Your task to perform on an android device: Open Wikipedia Image 0: 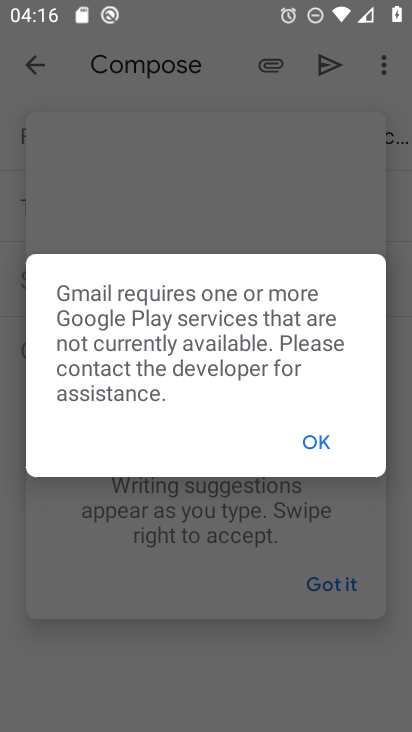
Step 0: press home button
Your task to perform on an android device: Open Wikipedia Image 1: 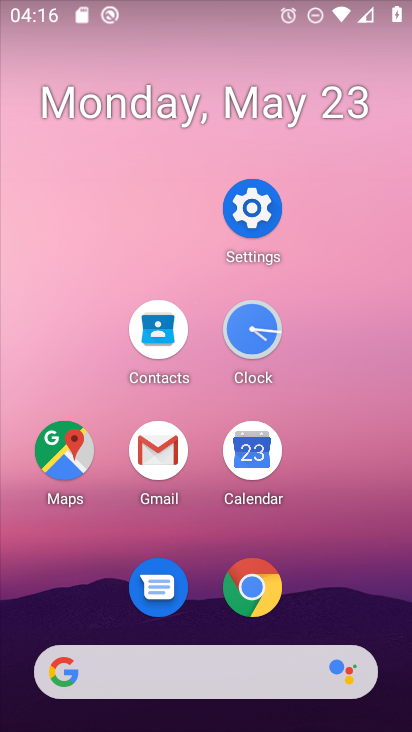
Step 1: click (345, 574)
Your task to perform on an android device: Open Wikipedia Image 2: 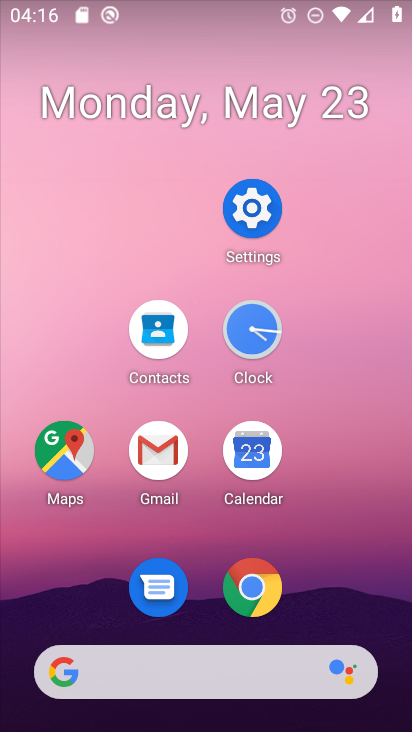
Step 2: click (262, 583)
Your task to perform on an android device: Open Wikipedia Image 3: 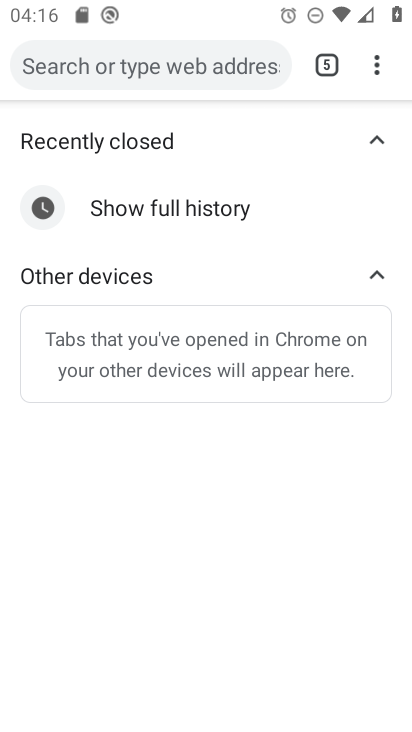
Step 3: click (212, 55)
Your task to perform on an android device: Open Wikipedia Image 4: 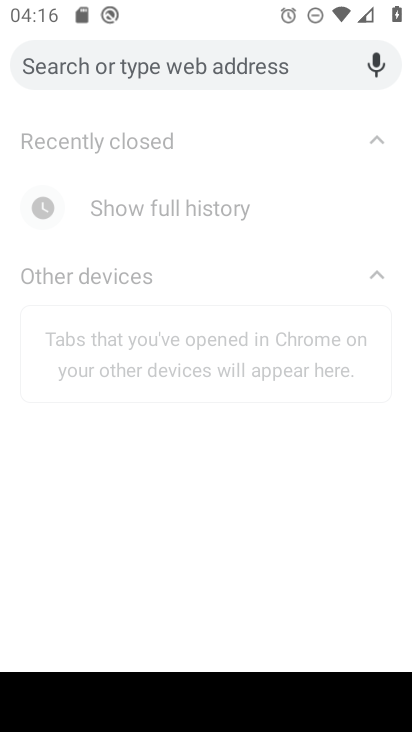
Step 4: type ""
Your task to perform on an android device: Open Wikipedia Image 5: 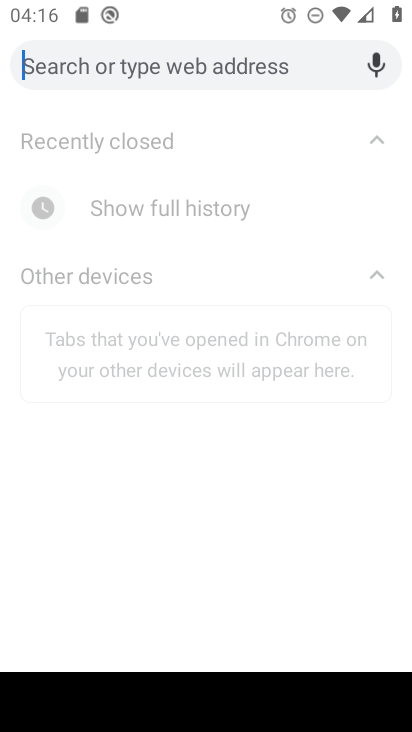
Step 5: type ""
Your task to perform on an android device: Open Wikipedia Image 6: 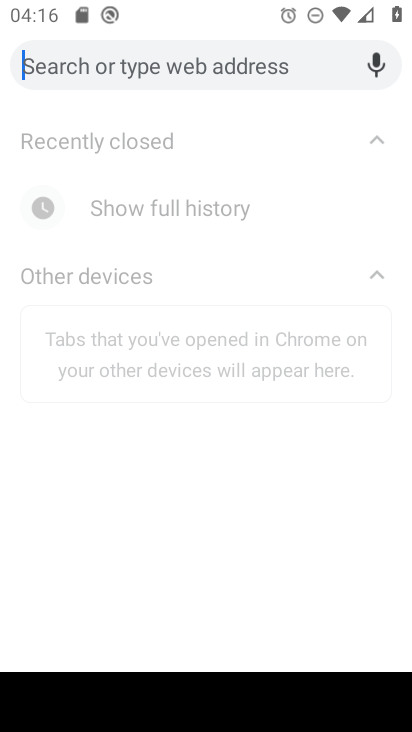
Step 6: type "wikipedia"
Your task to perform on an android device: Open Wikipedia Image 7: 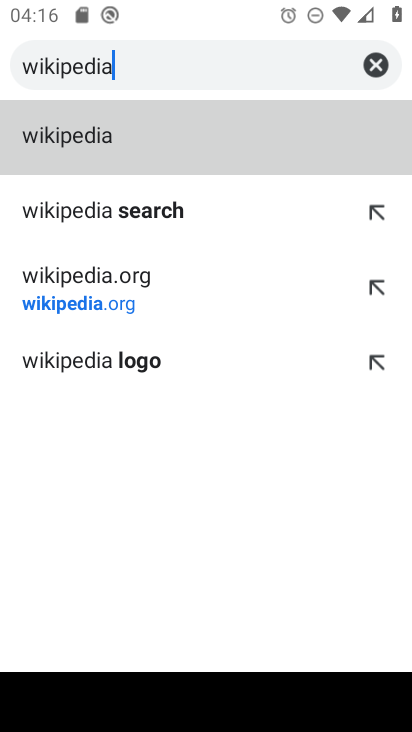
Step 7: click (162, 156)
Your task to perform on an android device: Open Wikipedia Image 8: 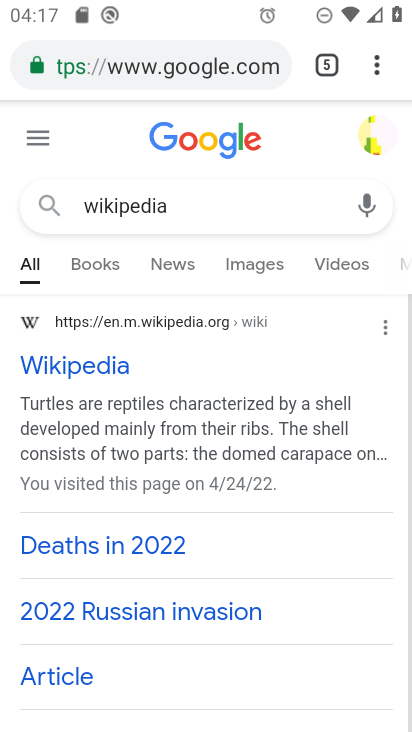
Step 8: click (96, 361)
Your task to perform on an android device: Open Wikipedia Image 9: 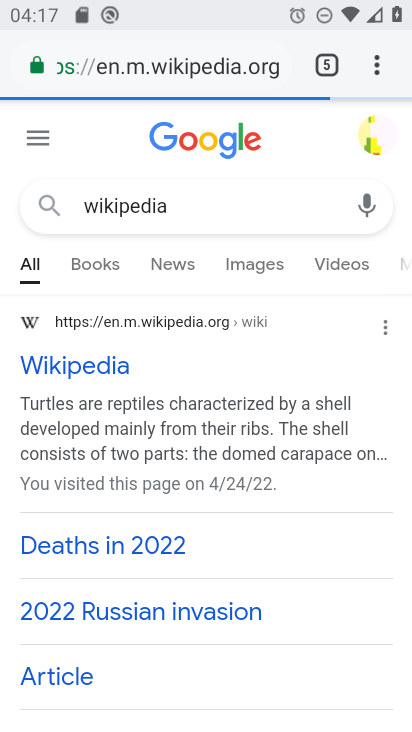
Step 9: task complete